Your task to perform on an android device: change the clock display to show seconds Image 0: 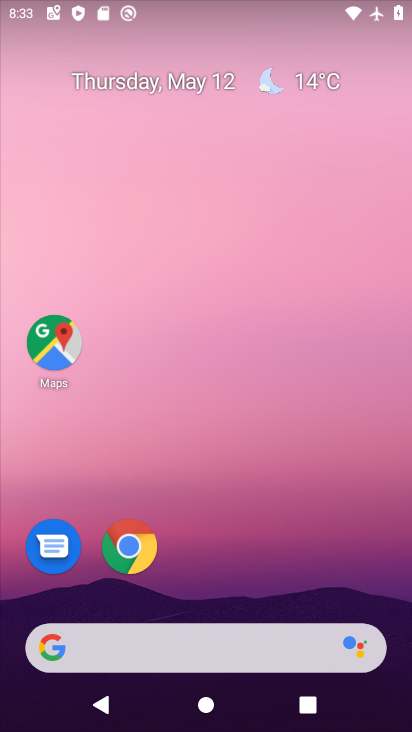
Step 0: drag from (206, 647) to (352, 104)
Your task to perform on an android device: change the clock display to show seconds Image 1: 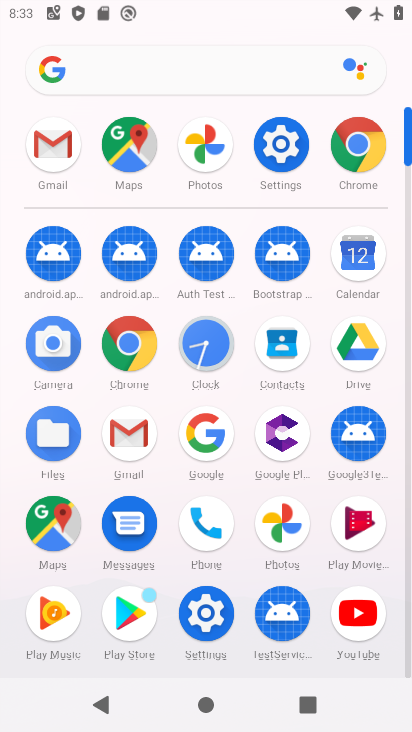
Step 1: click (207, 356)
Your task to perform on an android device: change the clock display to show seconds Image 2: 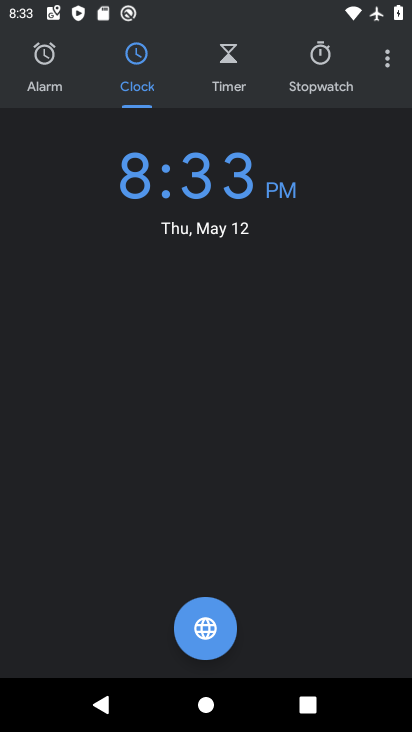
Step 2: click (387, 58)
Your task to perform on an android device: change the clock display to show seconds Image 3: 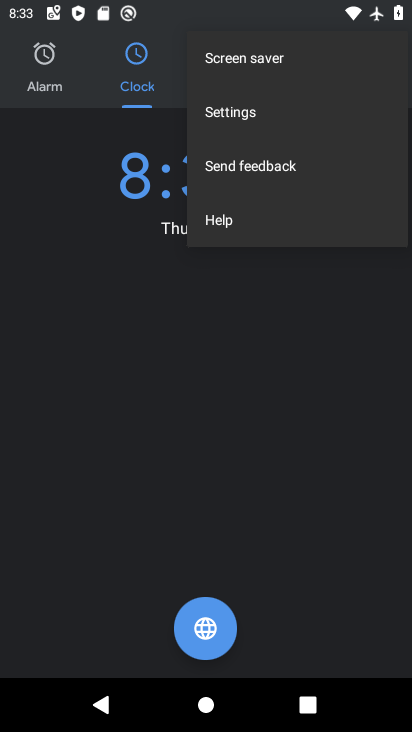
Step 3: click (217, 113)
Your task to perform on an android device: change the clock display to show seconds Image 4: 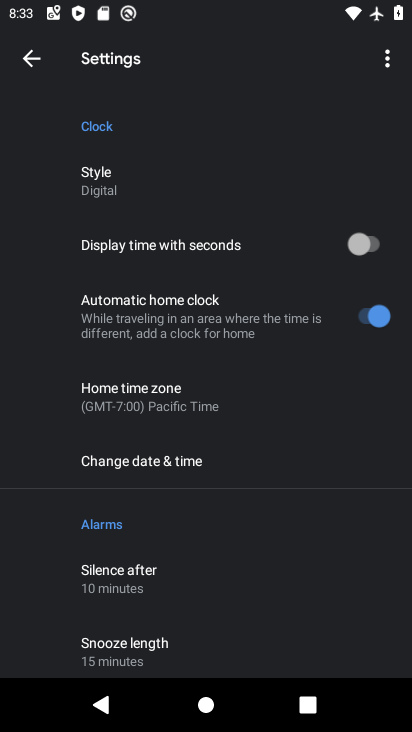
Step 4: click (371, 241)
Your task to perform on an android device: change the clock display to show seconds Image 5: 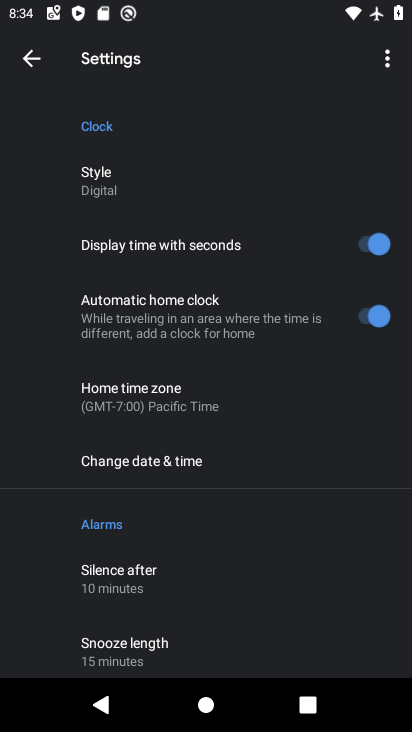
Step 5: task complete